Your task to perform on an android device: turn off smart reply in the gmail app Image 0: 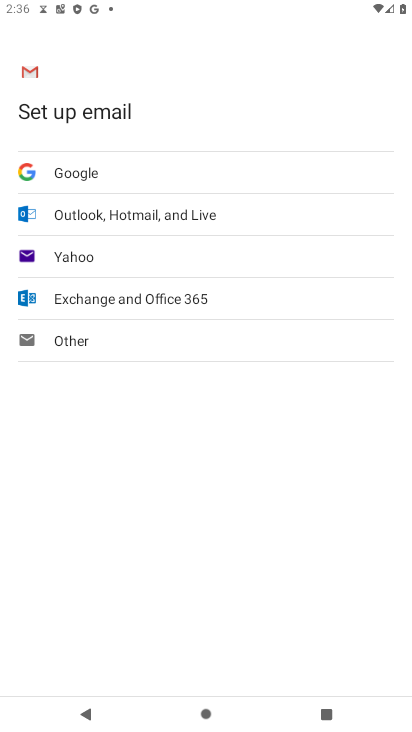
Step 0: press home button
Your task to perform on an android device: turn off smart reply in the gmail app Image 1: 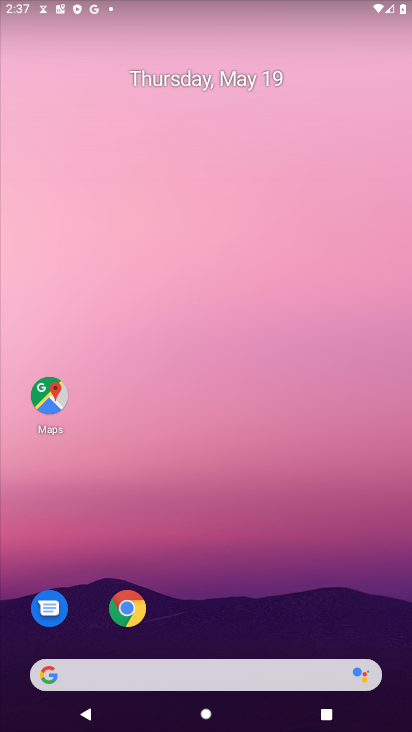
Step 1: drag from (226, 624) to (179, 152)
Your task to perform on an android device: turn off smart reply in the gmail app Image 2: 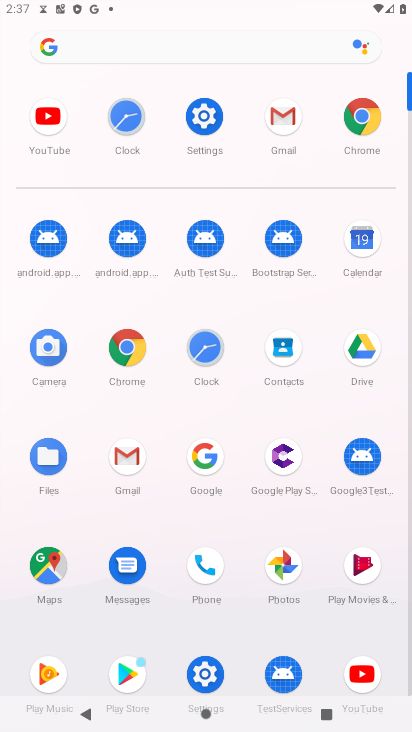
Step 2: click (285, 124)
Your task to perform on an android device: turn off smart reply in the gmail app Image 3: 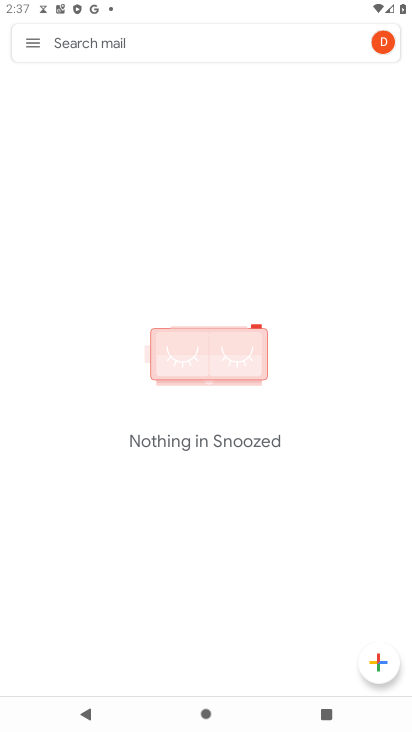
Step 3: click (28, 37)
Your task to perform on an android device: turn off smart reply in the gmail app Image 4: 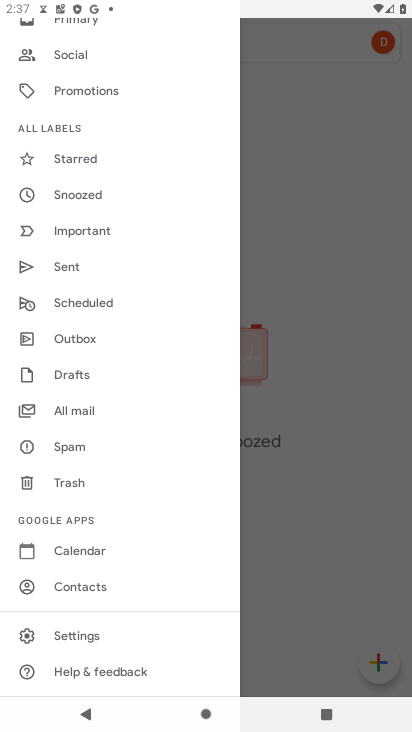
Step 4: click (131, 629)
Your task to perform on an android device: turn off smart reply in the gmail app Image 5: 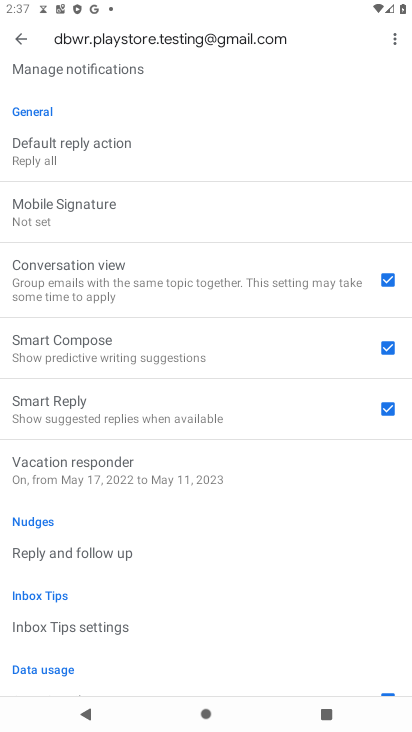
Step 5: click (263, 414)
Your task to perform on an android device: turn off smart reply in the gmail app Image 6: 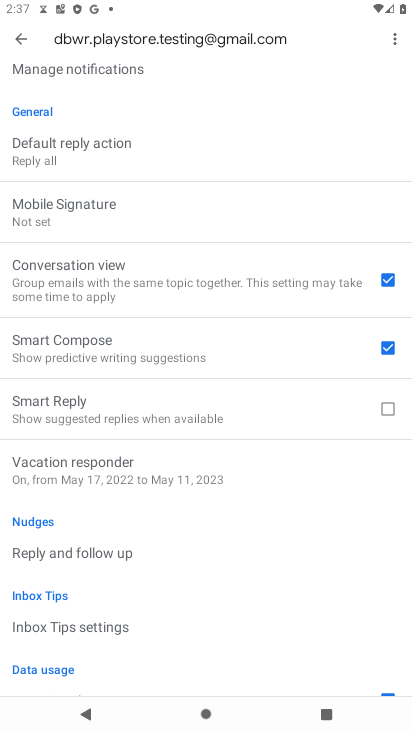
Step 6: task complete